Your task to perform on an android device: Open the stopwatch Image 0: 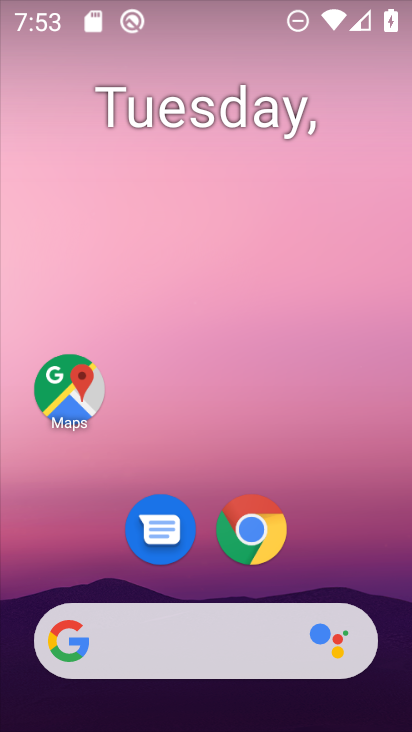
Step 0: drag from (143, 585) to (294, 83)
Your task to perform on an android device: Open the stopwatch Image 1: 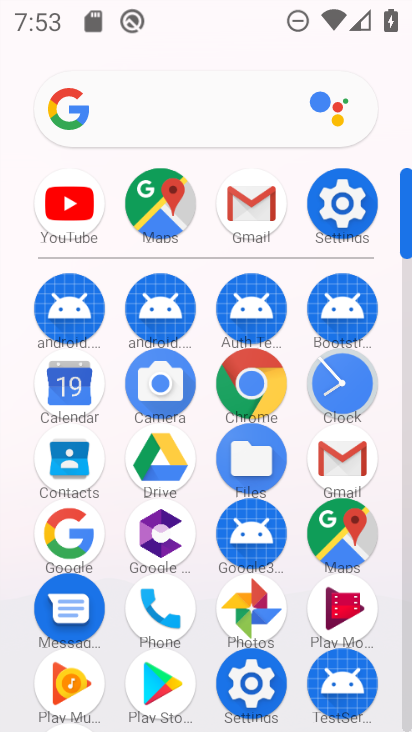
Step 1: click (333, 391)
Your task to perform on an android device: Open the stopwatch Image 2: 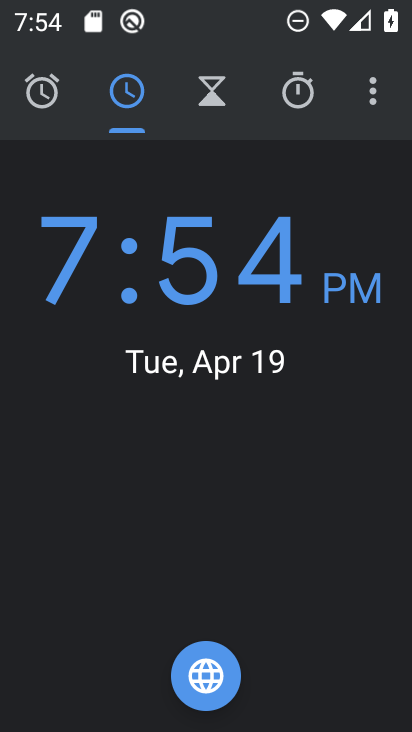
Step 2: click (296, 96)
Your task to perform on an android device: Open the stopwatch Image 3: 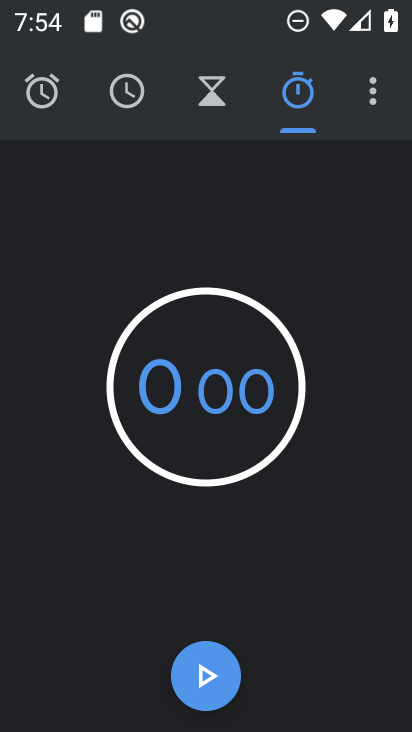
Step 3: task complete